Your task to perform on an android device: Is it going to rain tomorrow? Image 0: 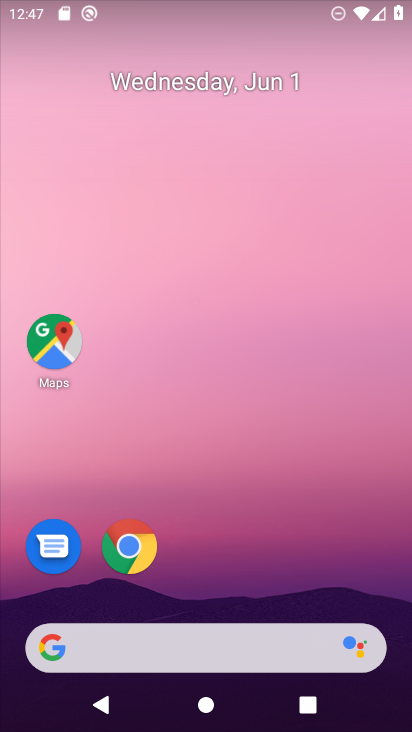
Step 0: drag from (220, 562) to (138, 68)
Your task to perform on an android device: Is it going to rain tomorrow? Image 1: 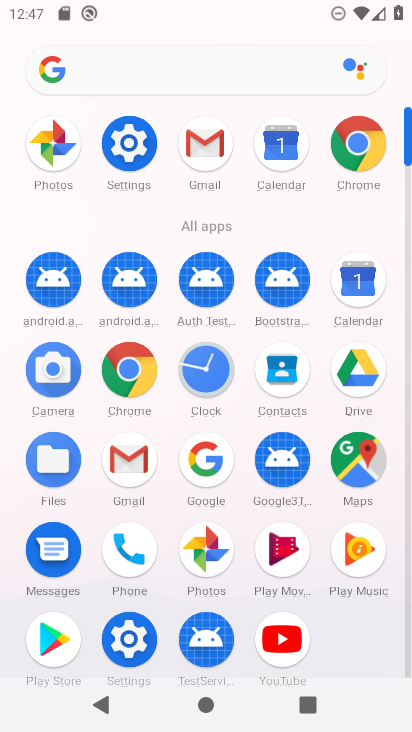
Step 1: click (364, 140)
Your task to perform on an android device: Is it going to rain tomorrow? Image 2: 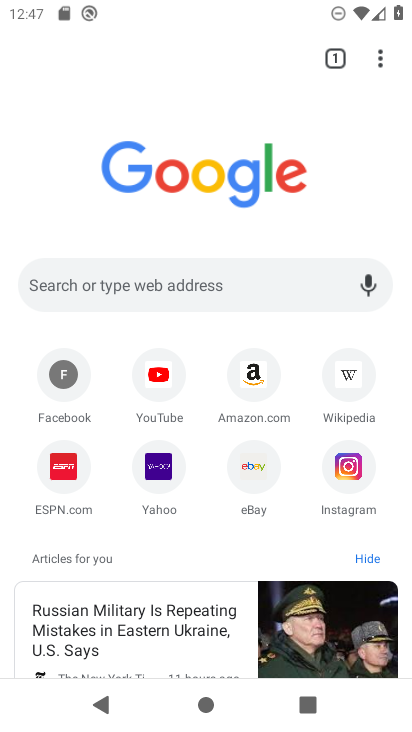
Step 2: click (176, 285)
Your task to perform on an android device: Is it going to rain tomorrow? Image 3: 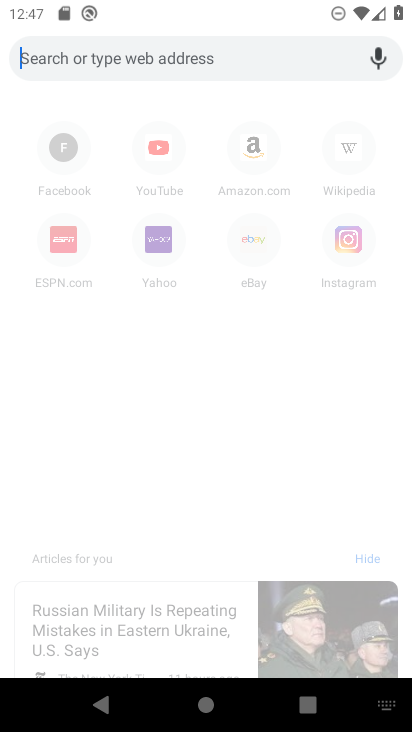
Step 3: type "is it going to rain tomorrow?"
Your task to perform on an android device: Is it going to rain tomorrow? Image 4: 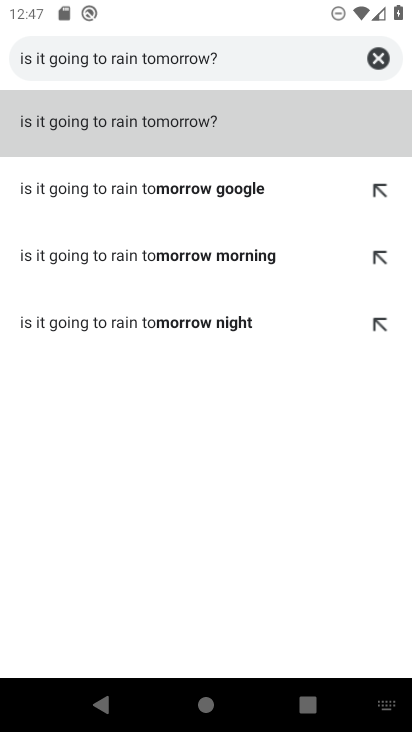
Step 4: click (198, 108)
Your task to perform on an android device: Is it going to rain tomorrow? Image 5: 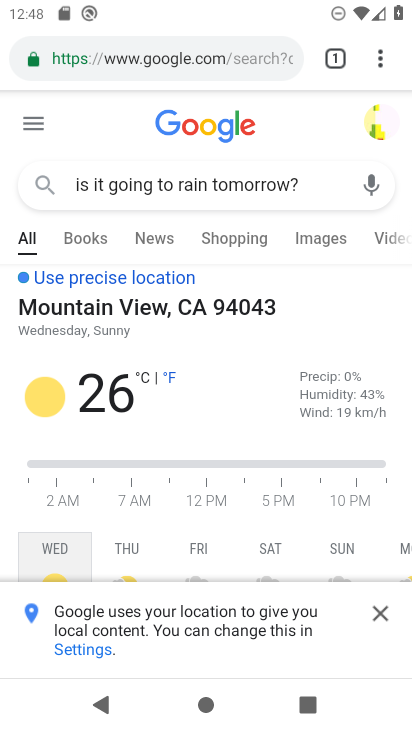
Step 5: task complete